Your task to perform on an android device: Check the weather Image 0: 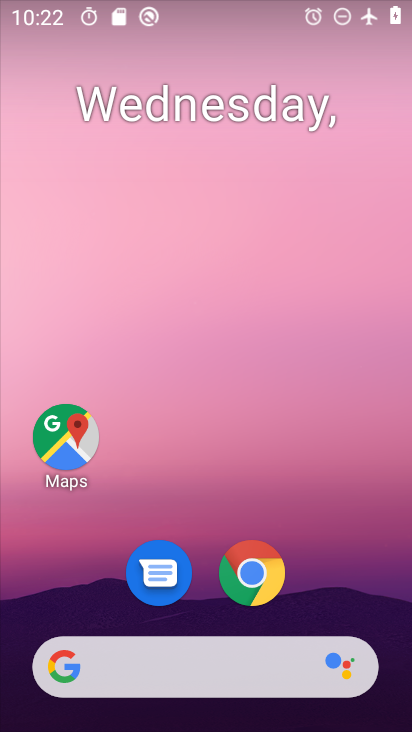
Step 0: drag from (320, 639) to (338, 264)
Your task to perform on an android device: Check the weather Image 1: 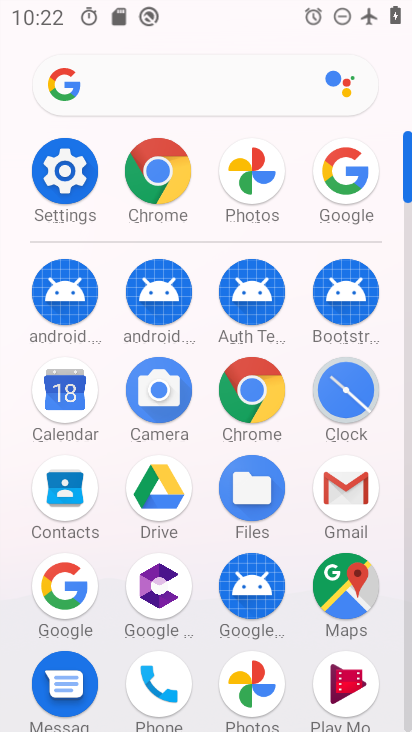
Step 1: click (65, 620)
Your task to perform on an android device: Check the weather Image 2: 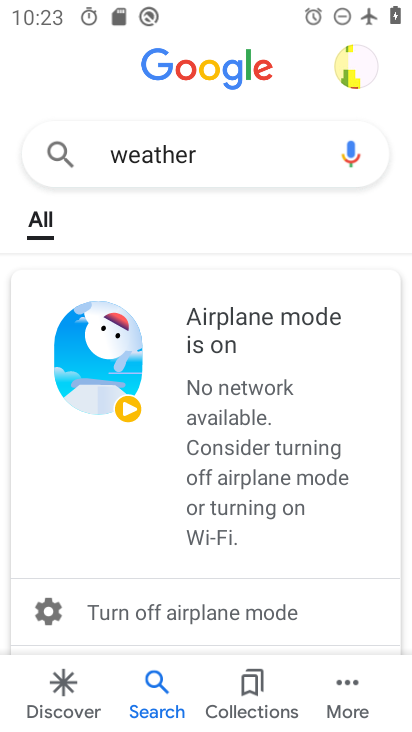
Step 2: task complete